Your task to perform on an android device: turn on improve location accuracy Image 0: 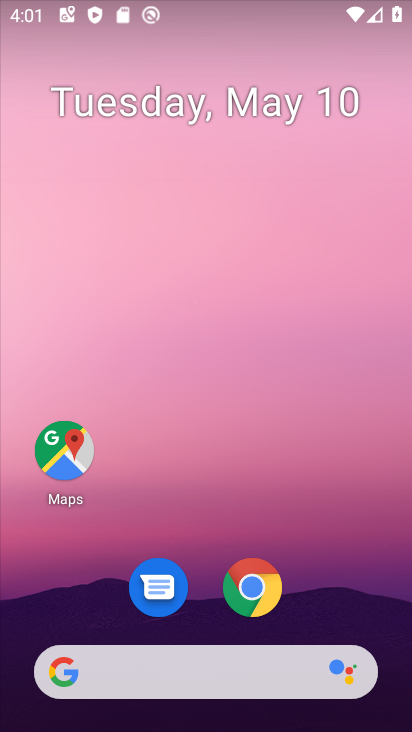
Step 0: drag from (267, 692) to (332, 159)
Your task to perform on an android device: turn on improve location accuracy Image 1: 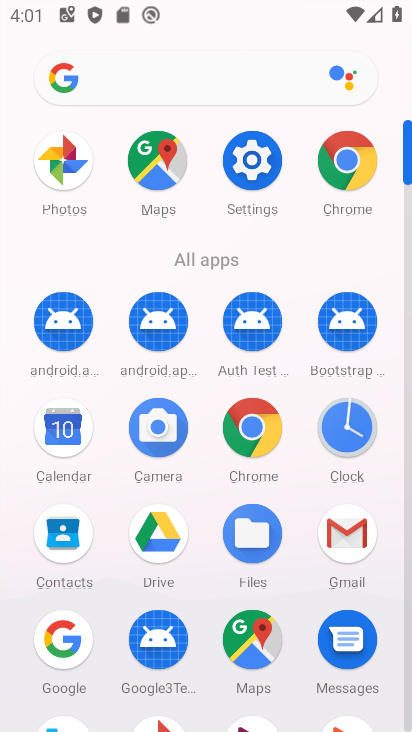
Step 1: click (253, 159)
Your task to perform on an android device: turn on improve location accuracy Image 2: 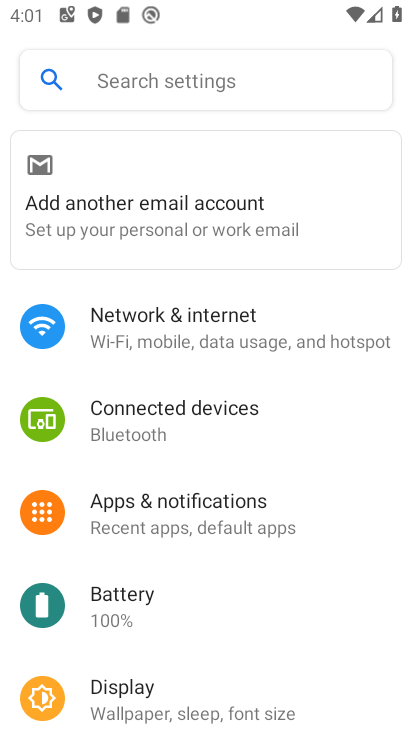
Step 2: click (202, 87)
Your task to perform on an android device: turn on improve location accuracy Image 3: 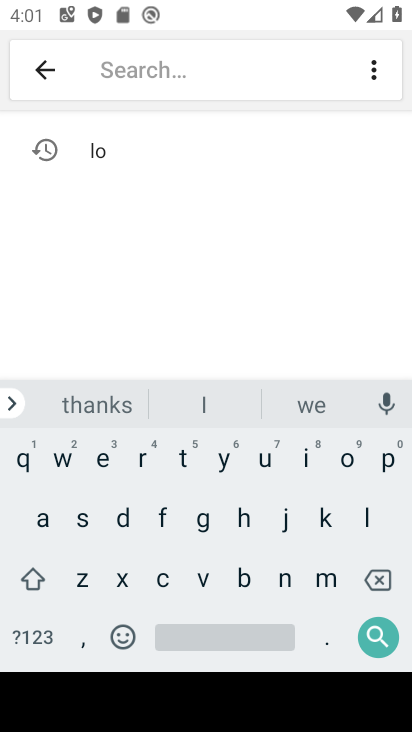
Step 3: click (126, 162)
Your task to perform on an android device: turn on improve location accuracy Image 4: 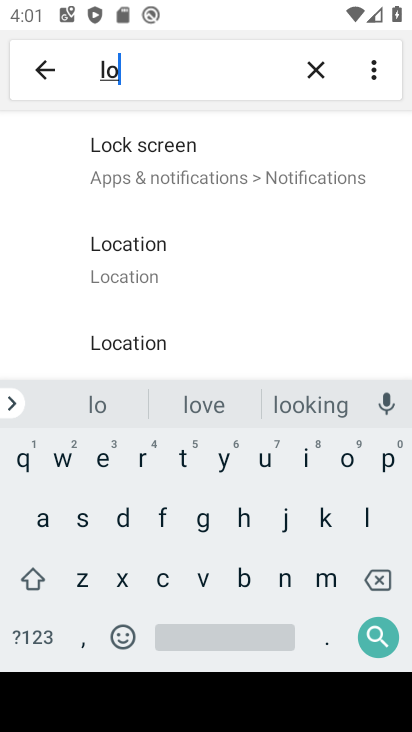
Step 4: click (116, 258)
Your task to perform on an android device: turn on improve location accuracy Image 5: 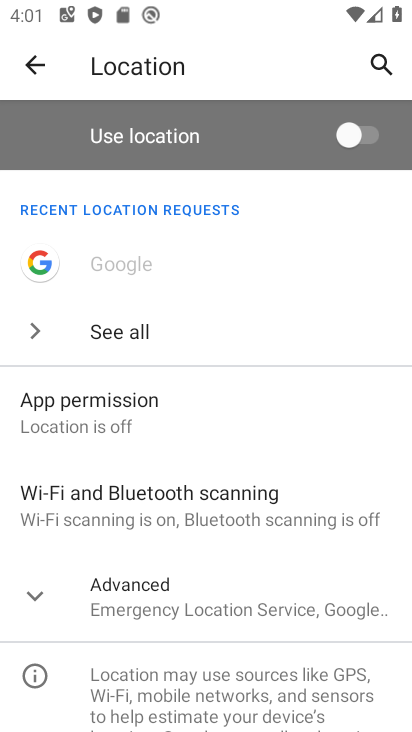
Step 5: click (107, 567)
Your task to perform on an android device: turn on improve location accuracy Image 6: 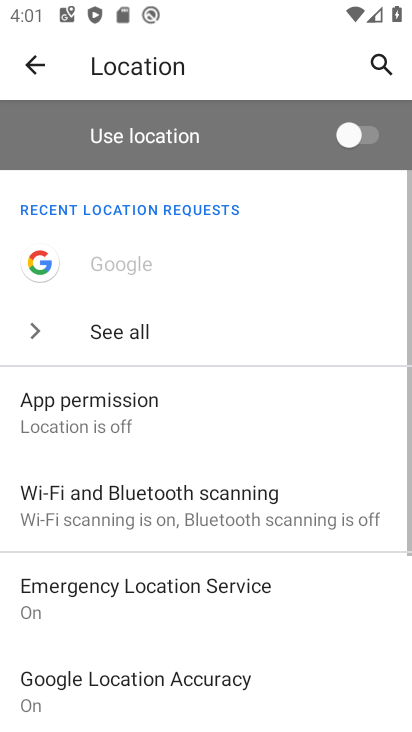
Step 6: drag from (175, 555) to (259, 269)
Your task to perform on an android device: turn on improve location accuracy Image 7: 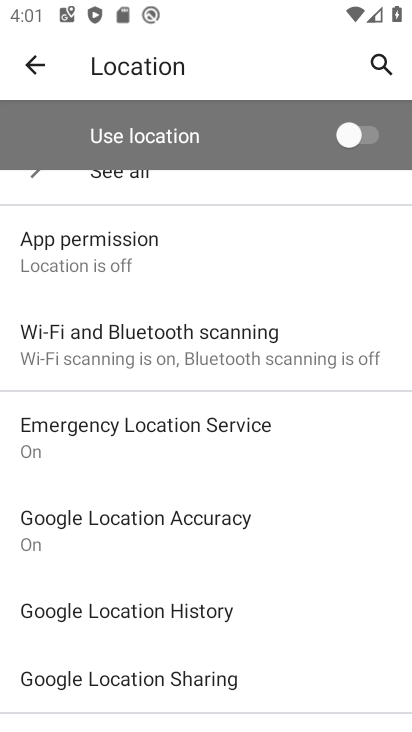
Step 7: click (162, 522)
Your task to perform on an android device: turn on improve location accuracy Image 8: 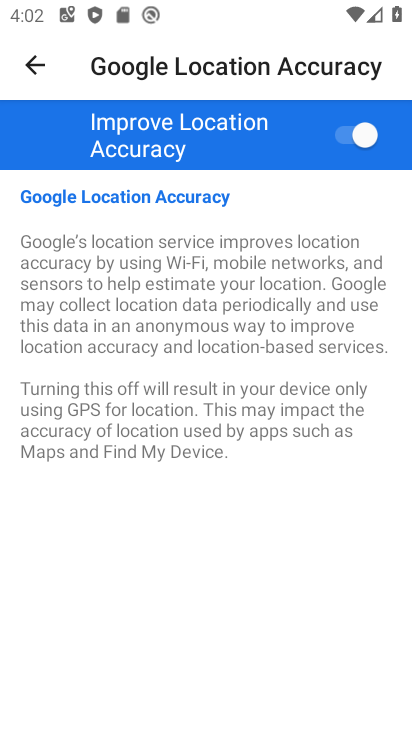
Step 8: click (351, 159)
Your task to perform on an android device: turn on improve location accuracy Image 9: 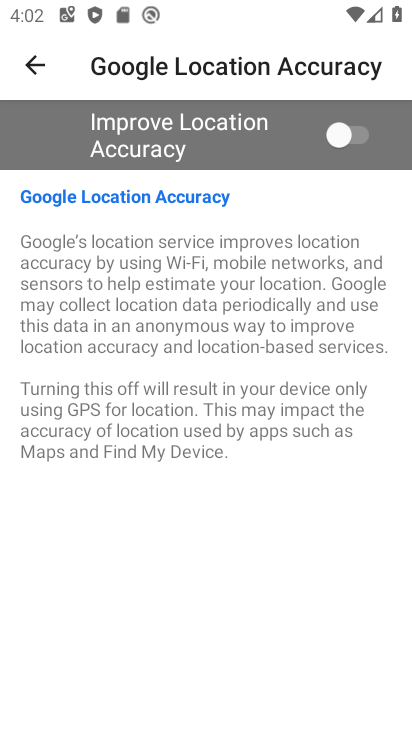
Step 9: click (351, 160)
Your task to perform on an android device: turn on improve location accuracy Image 10: 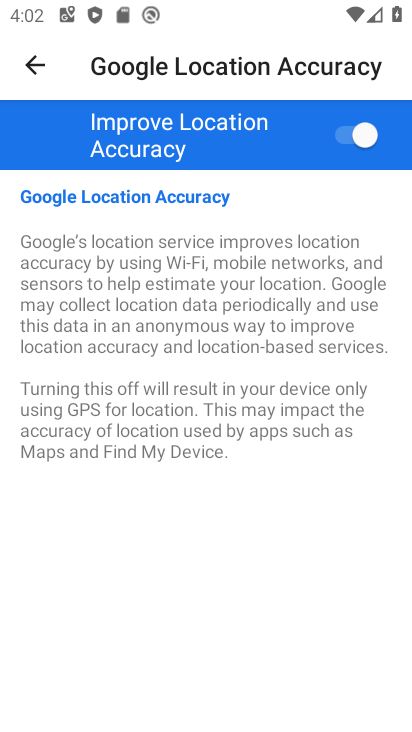
Step 10: task complete